Your task to perform on an android device: turn notification dots off Image 0: 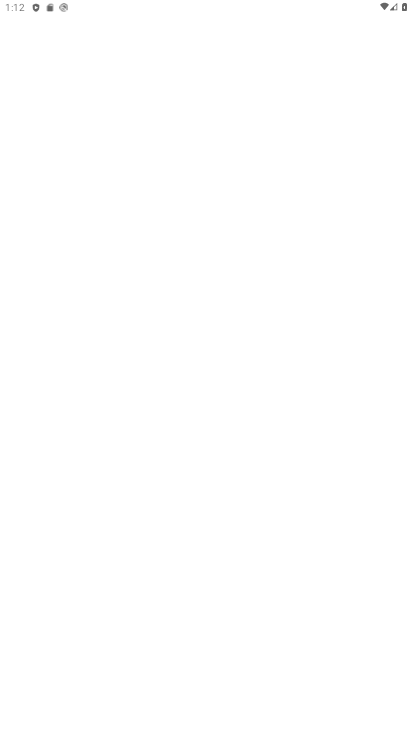
Step 0: click (131, 60)
Your task to perform on an android device: turn notification dots off Image 1: 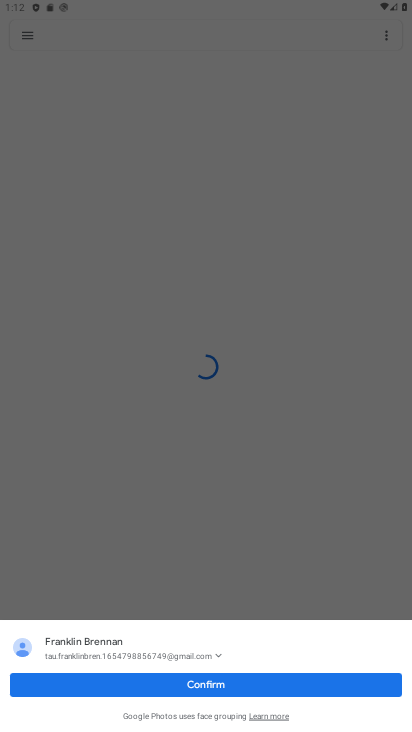
Step 1: press home button
Your task to perform on an android device: turn notification dots off Image 2: 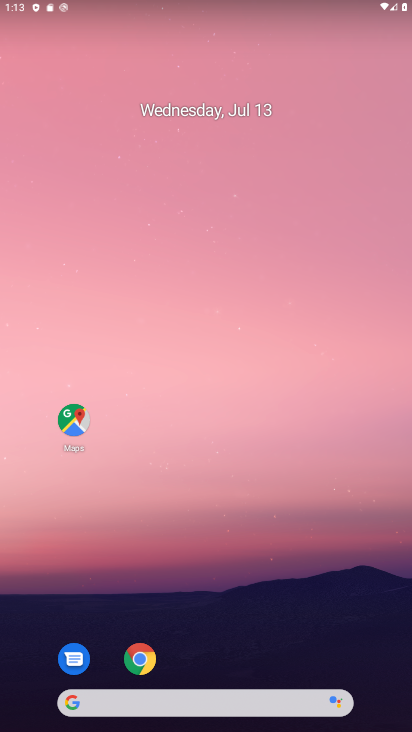
Step 2: drag from (373, 638) to (315, 120)
Your task to perform on an android device: turn notification dots off Image 3: 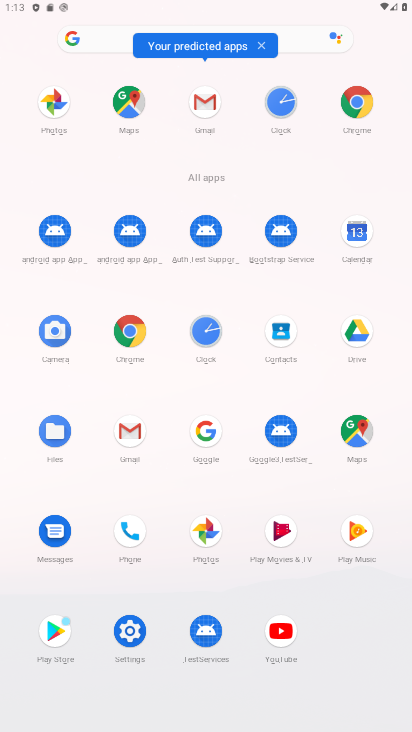
Step 3: click (126, 630)
Your task to perform on an android device: turn notification dots off Image 4: 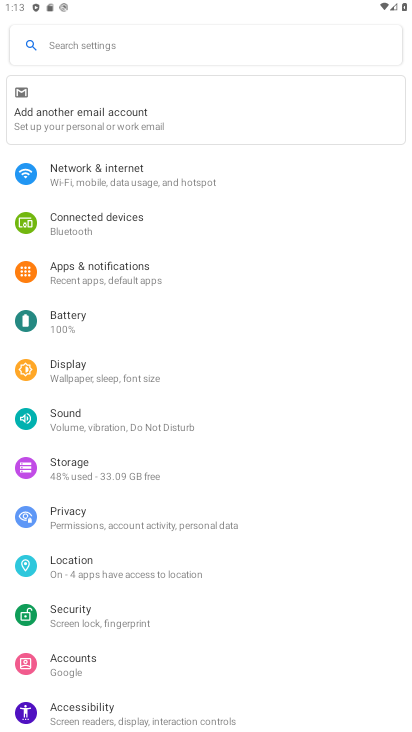
Step 4: click (143, 271)
Your task to perform on an android device: turn notification dots off Image 5: 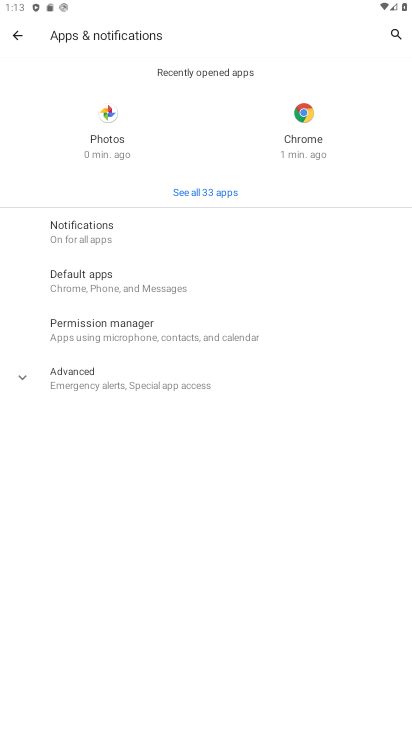
Step 5: click (138, 243)
Your task to perform on an android device: turn notification dots off Image 6: 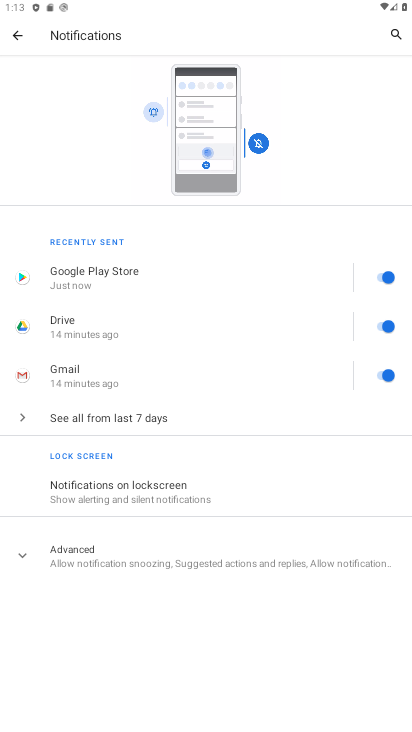
Step 6: click (263, 555)
Your task to perform on an android device: turn notification dots off Image 7: 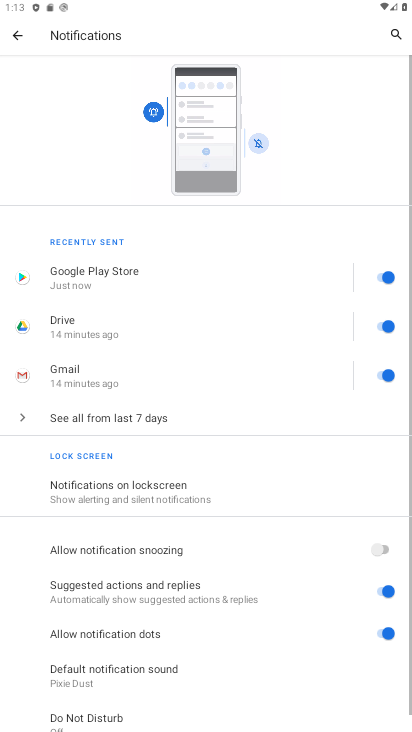
Step 7: drag from (263, 555) to (242, 254)
Your task to perform on an android device: turn notification dots off Image 8: 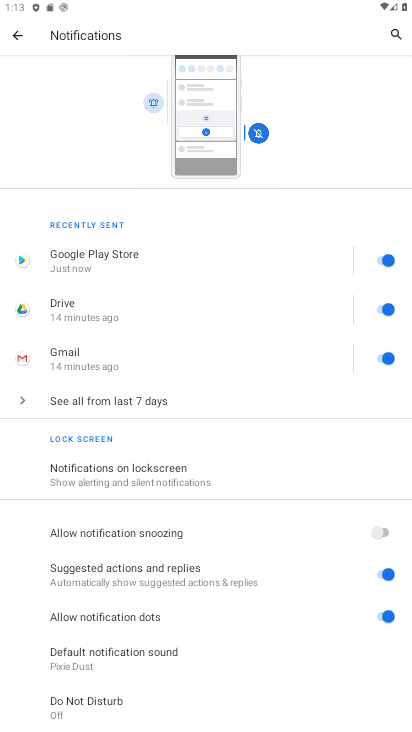
Step 8: click (382, 623)
Your task to perform on an android device: turn notification dots off Image 9: 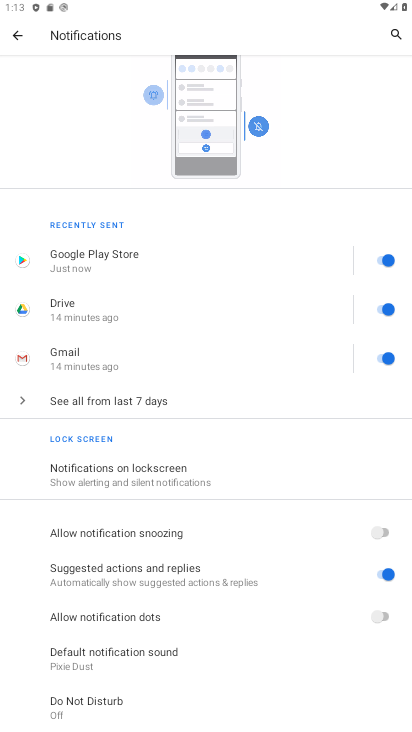
Step 9: task complete